Your task to perform on an android device: Go to notification settings Image 0: 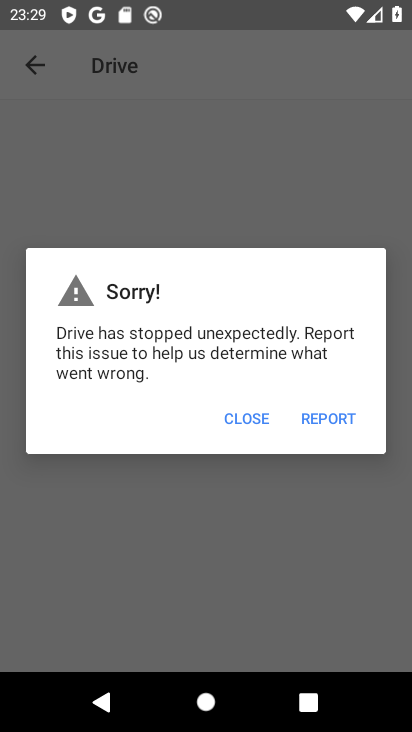
Step 0: press home button
Your task to perform on an android device: Go to notification settings Image 1: 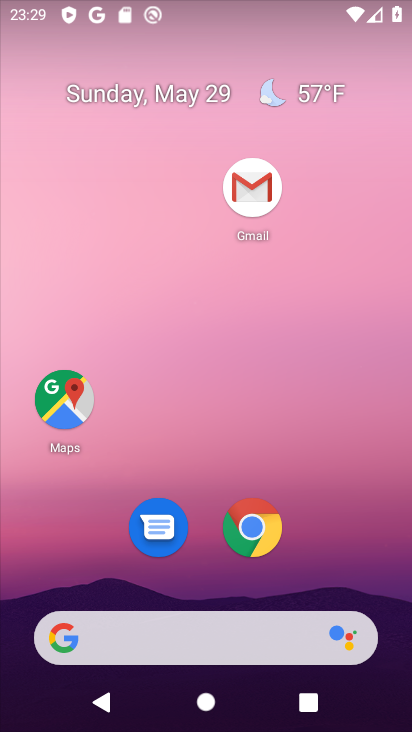
Step 1: drag from (330, 547) to (271, 70)
Your task to perform on an android device: Go to notification settings Image 2: 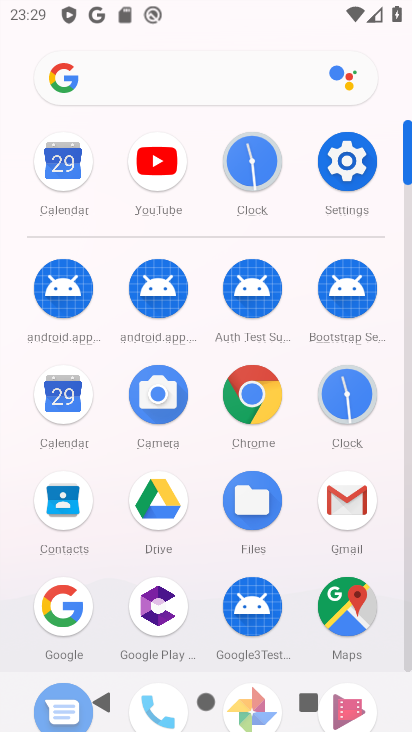
Step 2: click (347, 161)
Your task to perform on an android device: Go to notification settings Image 3: 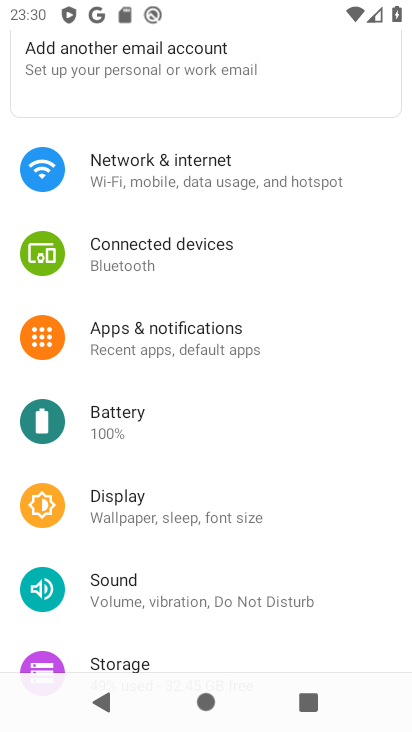
Step 3: click (170, 335)
Your task to perform on an android device: Go to notification settings Image 4: 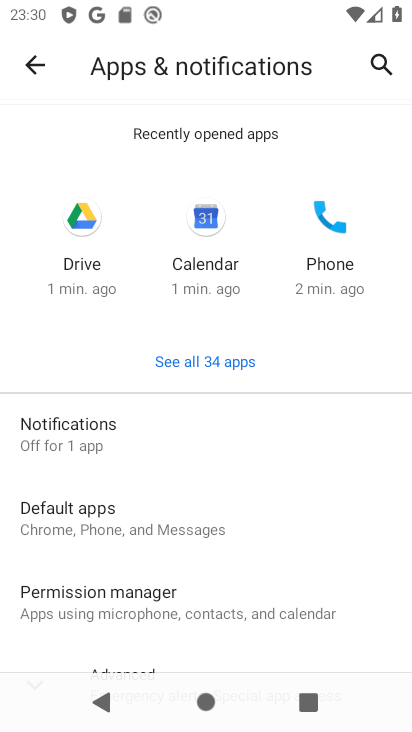
Step 4: click (86, 434)
Your task to perform on an android device: Go to notification settings Image 5: 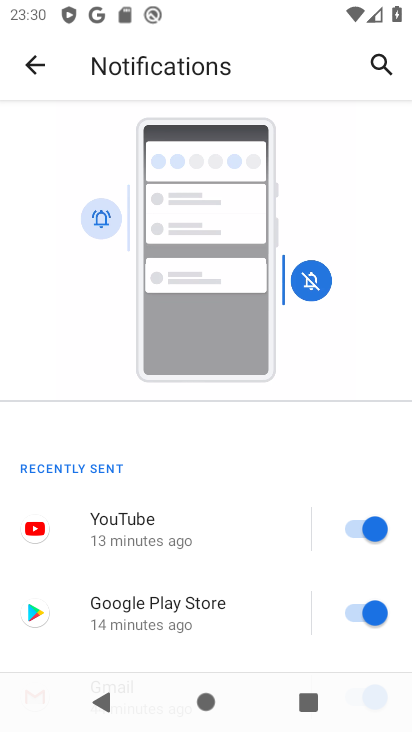
Step 5: task complete